Your task to perform on an android device: check out phone information Image 0: 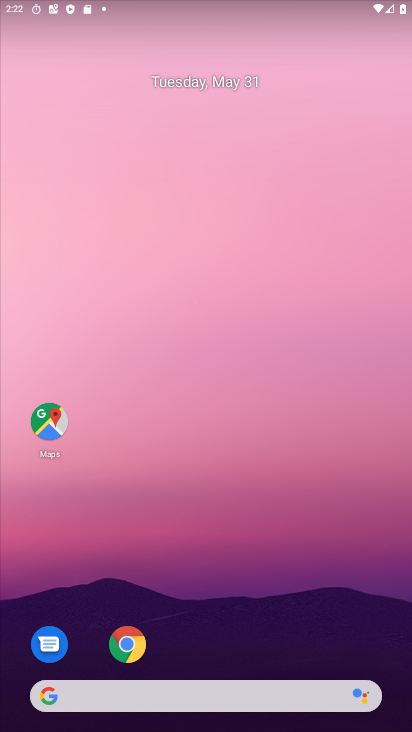
Step 0: drag from (397, 652) to (322, 97)
Your task to perform on an android device: check out phone information Image 1: 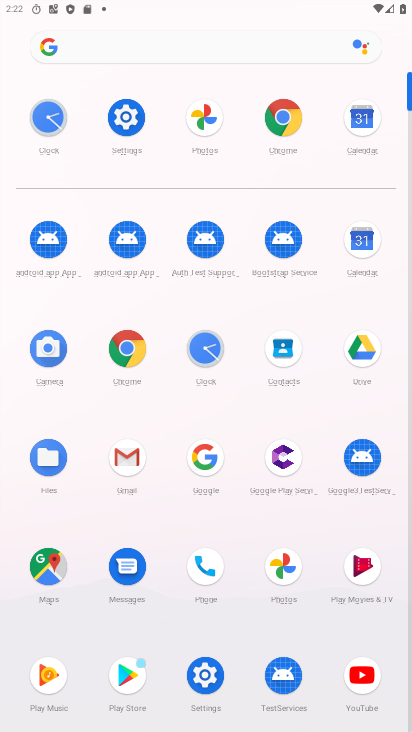
Step 1: click (123, 106)
Your task to perform on an android device: check out phone information Image 2: 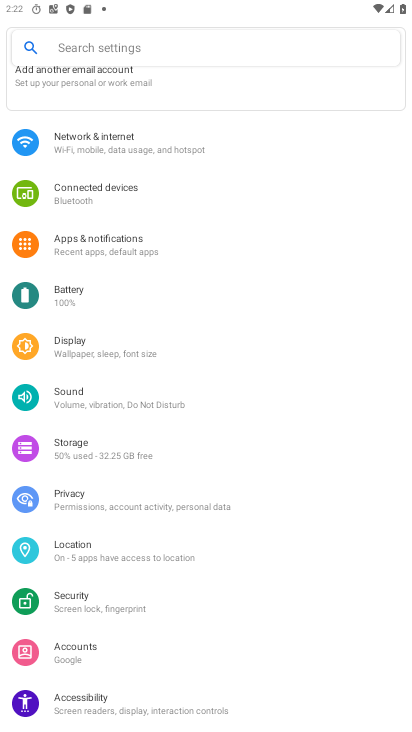
Step 2: drag from (267, 665) to (305, 286)
Your task to perform on an android device: check out phone information Image 3: 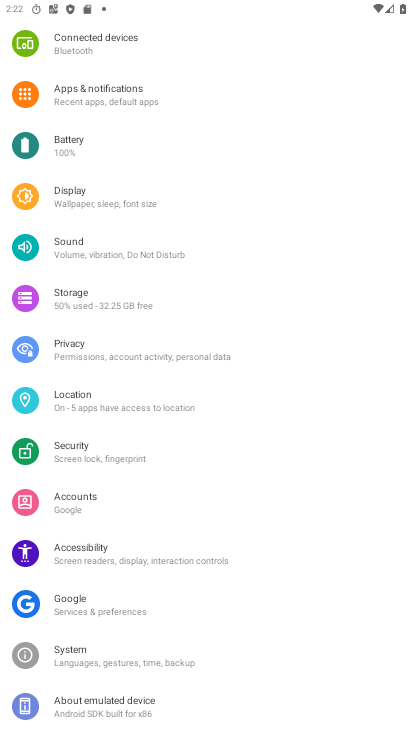
Step 3: click (56, 703)
Your task to perform on an android device: check out phone information Image 4: 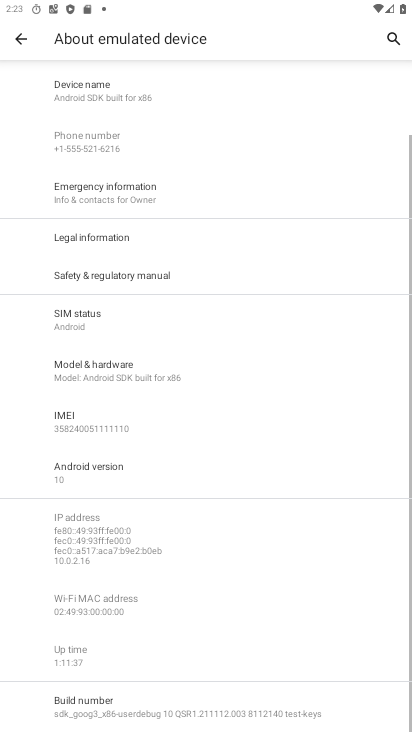
Step 4: task complete